Your task to perform on an android device: turn off translation in the chrome app Image 0: 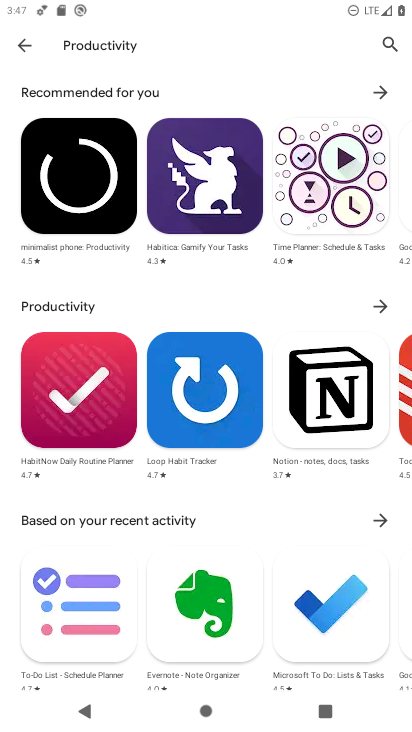
Step 0: press home button
Your task to perform on an android device: turn off translation in the chrome app Image 1: 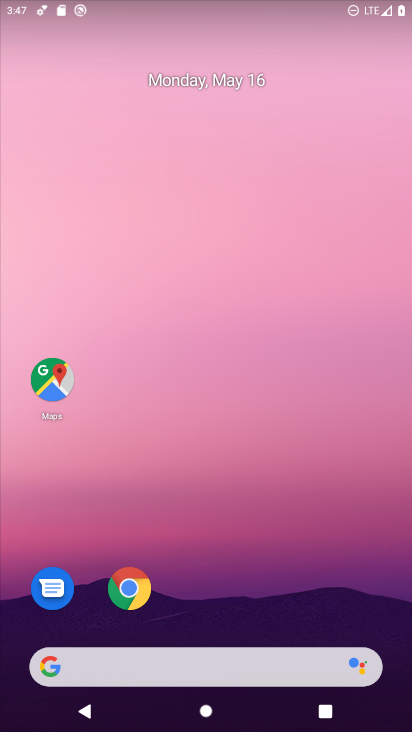
Step 1: click (131, 588)
Your task to perform on an android device: turn off translation in the chrome app Image 2: 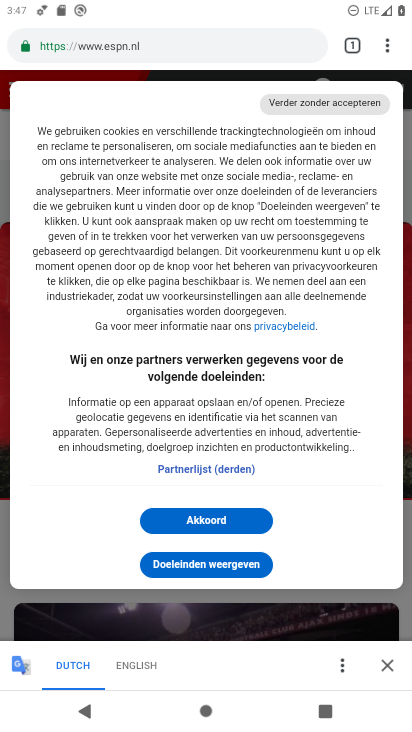
Step 2: click (389, 51)
Your task to perform on an android device: turn off translation in the chrome app Image 3: 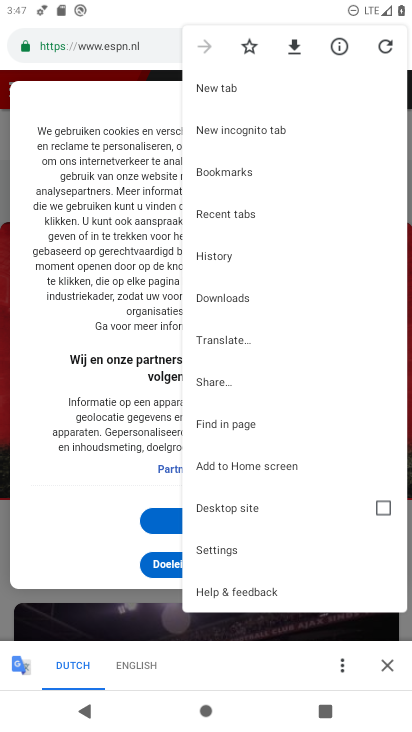
Step 3: click (218, 551)
Your task to perform on an android device: turn off translation in the chrome app Image 4: 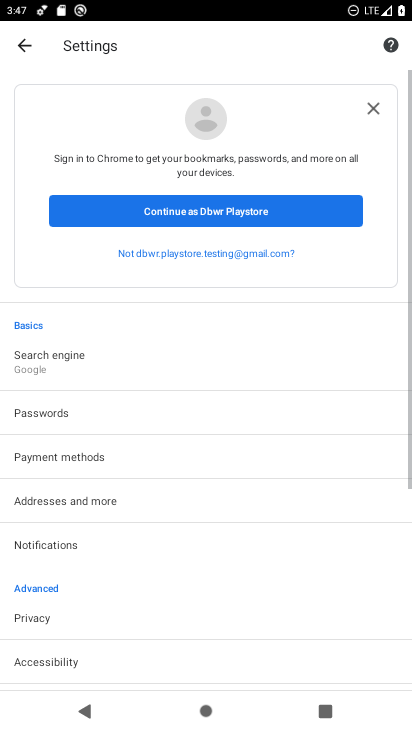
Step 4: drag from (183, 579) to (195, 205)
Your task to perform on an android device: turn off translation in the chrome app Image 5: 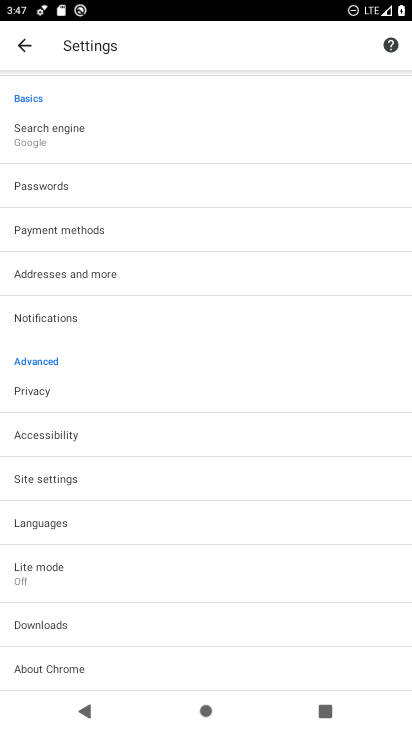
Step 5: click (19, 527)
Your task to perform on an android device: turn off translation in the chrome app Image 6: 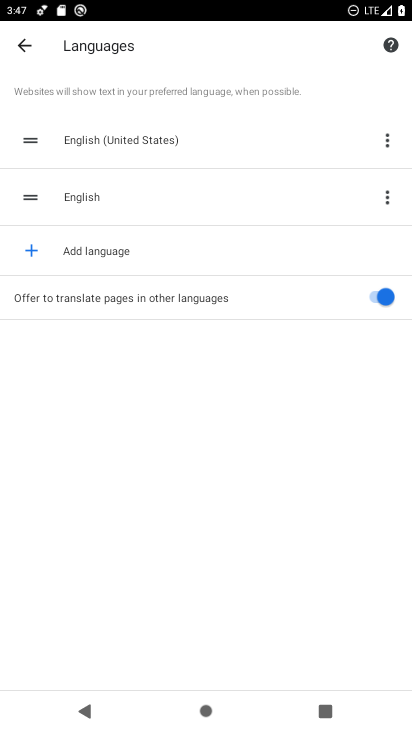
Step 6: click (375, 301)
Your task to perform on an android device: turn off translation in the chrome app Image 7: 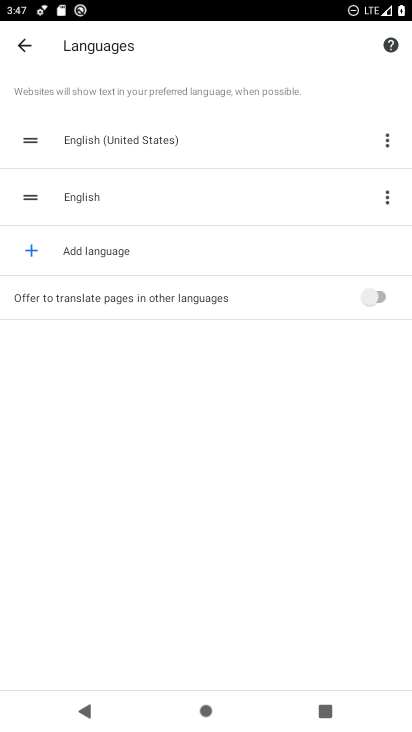
Step 7: task complete